Your task to perform on an android device: open a bookmark in the chrome app Image 0: 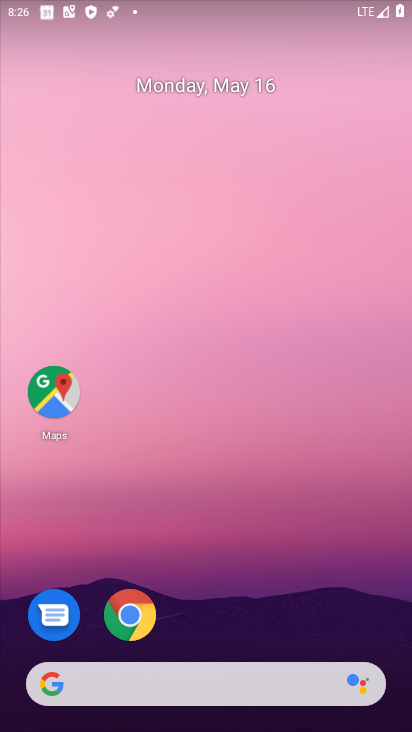
Step 0: drag from (247, 583) to (274, 81)
Your task to perform on an android device: open a bookmark in the chrome app Image 1: 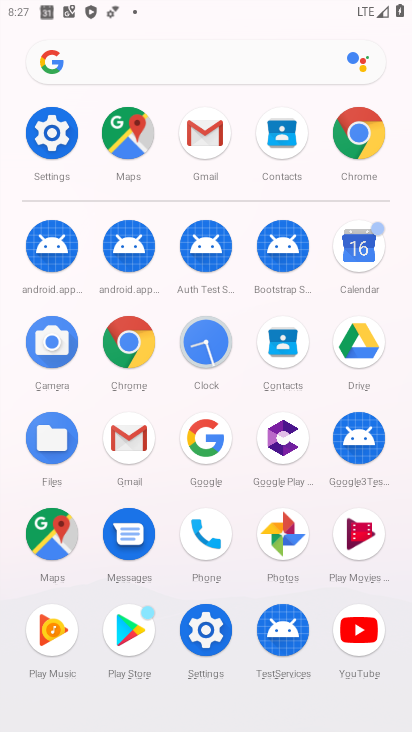
Step 1: click (356, 175)
Your task to perform on an android device: open a bookmark in the chrome app Image 2: 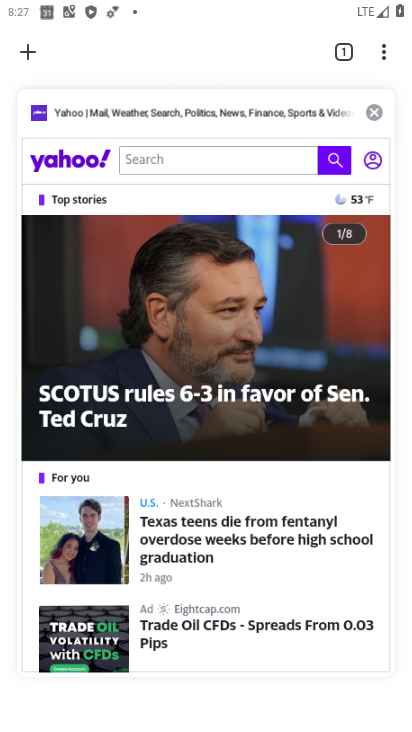
Step 2: click (306, 345)
Your task to perform on an android device: open a bookmark in the chrome app Image 3: 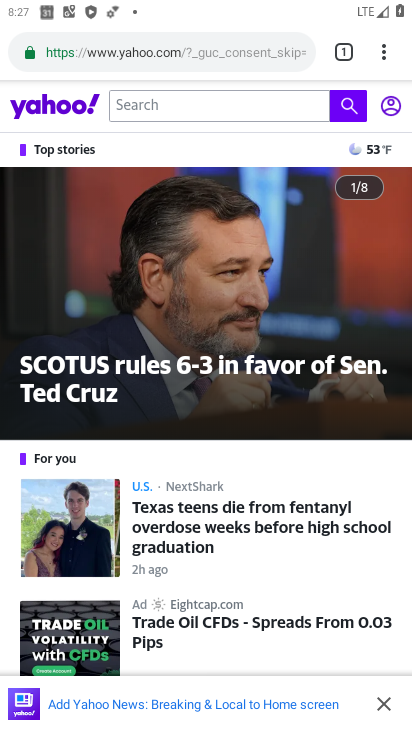
Step 3: click (384, 56)
Your task to perform on an android device: open a bookmark in the chrome app Image 4: 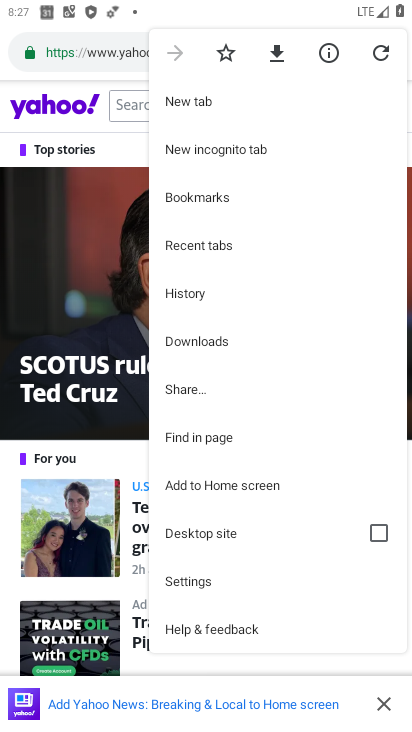
Step 4: click (177, 199)
Your task to perform on an android device: open a bookmark in the chrome app Image 5: 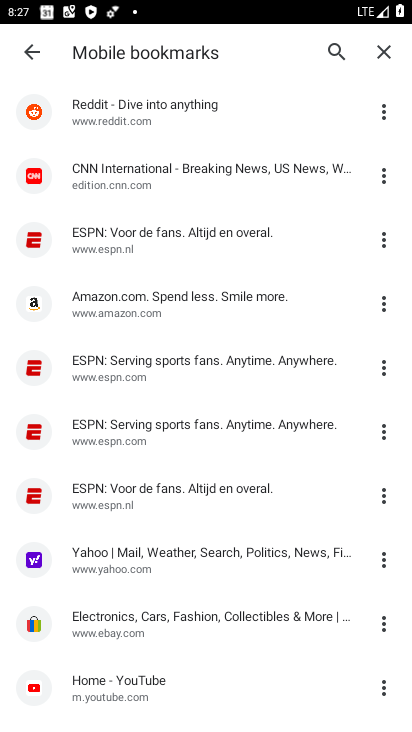
Step 5: drag from (172, 486) to (221, 316)
Your task to perform on an android device: open a bookmark in the chrome app Image 6: 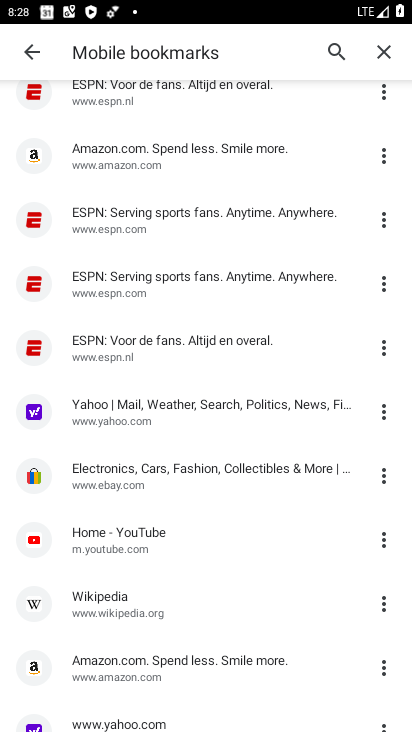
Step 6: click (233, 421)
Your task to perform on an android device: open a bookmark in the chrome app Image 7: 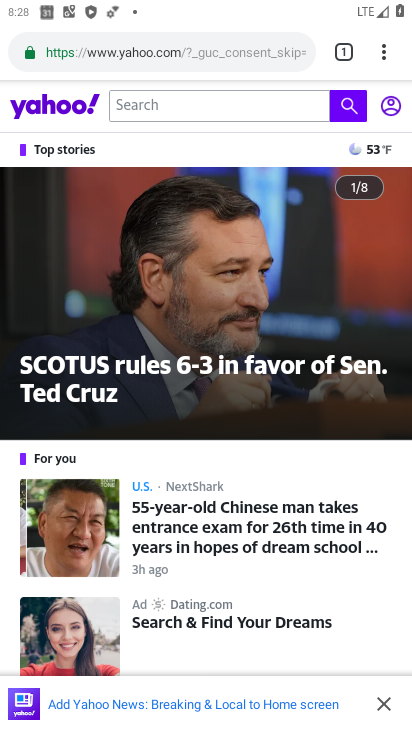
Step 7: task complete